Your task to perform on an android device: turn notification dots off Image 0: 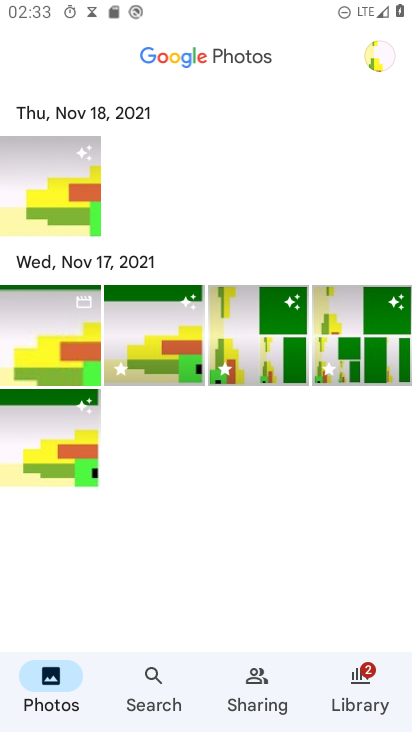
Step 0: press home button
Your task to perform on an android device: turn notification dots off Image 1: 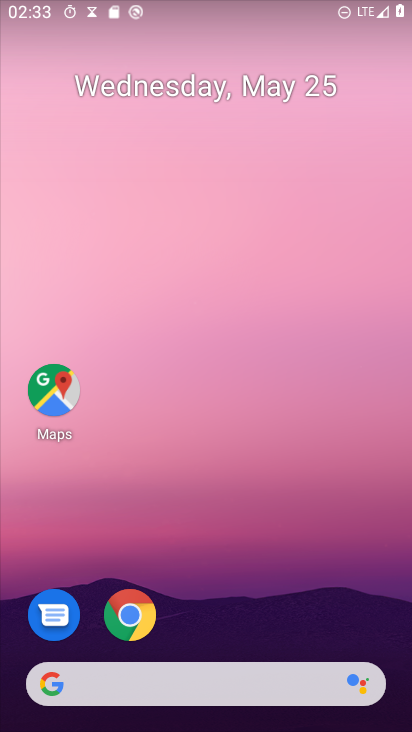
Step 1: drag from (255, 628) to (181, 4)
Your task to perform on an android device: turn notification dots off Image 2: 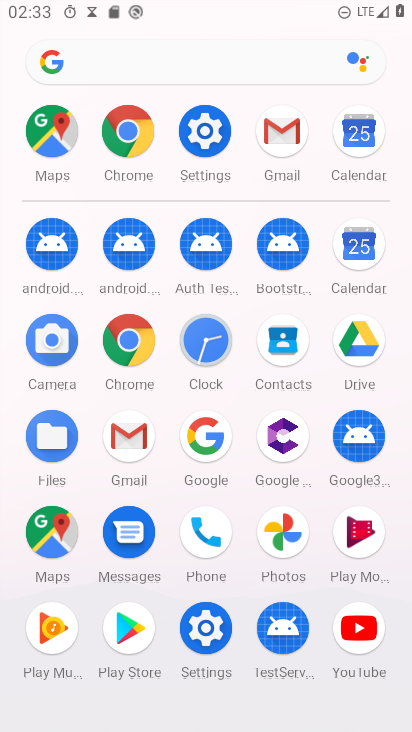
Step 2: click (191, 140)
Your task to perform on an android device: turn notification dots off Image 3: 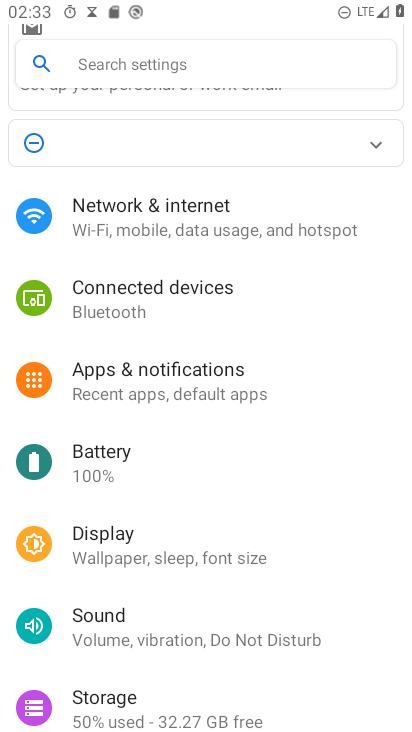
Step 3: click (98, 62)
Your task to perform on an android device: turn notification dots off Image 4: 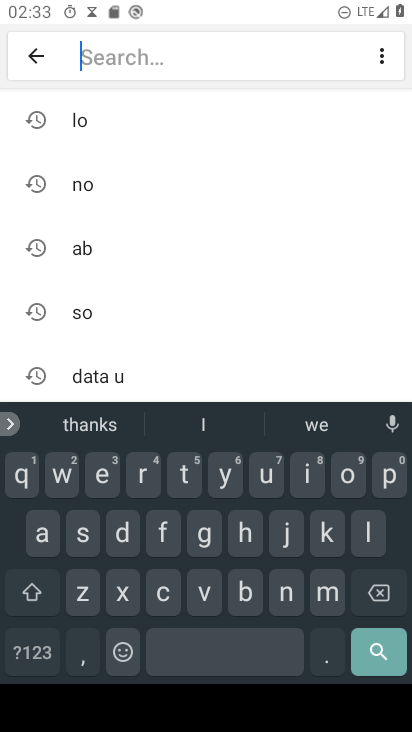
Step 4: click (123, 536)
Your task to perform on an android device: turn notification dots off Image 5: 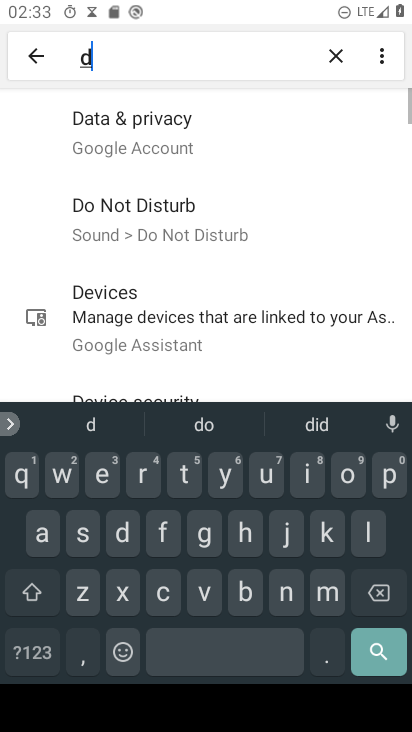
Step 5: click (355, 481)
Your task to perform on an android device: turn notification dots off Image 6: 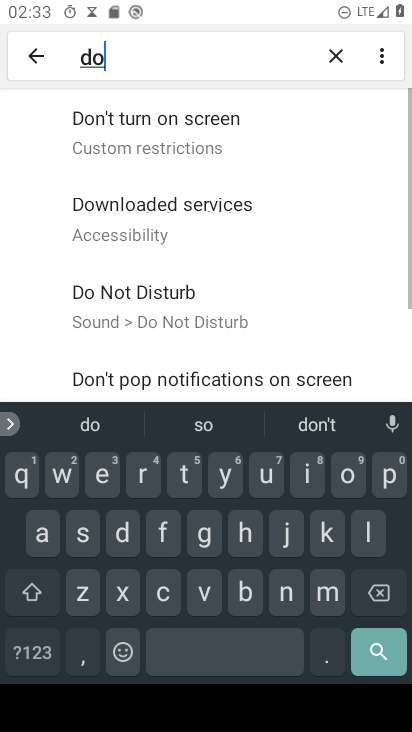
Step 6: click (181, 480)
Your task to perform on an android device: turn notification dots off Image 7: 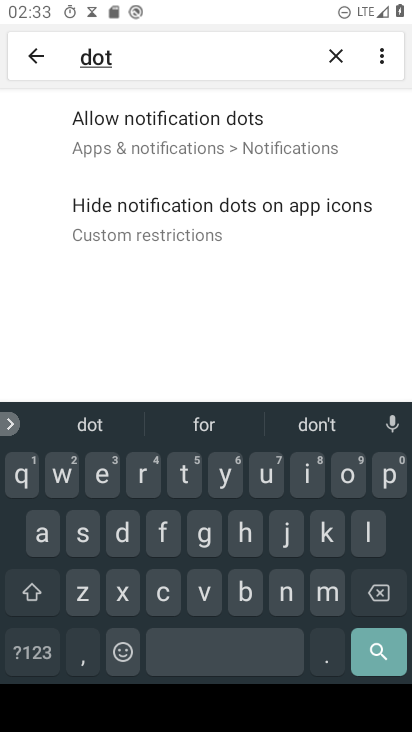
Step 7: click (192, 131)
Your task to perform on an android device: turn notification dots off Image 8: 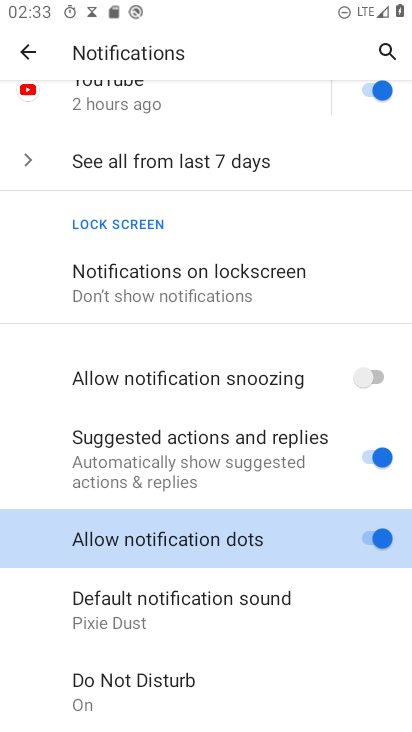
Step 8: click (371, 518)
Your task to perform on an android device: turn notification dots off Image 9: 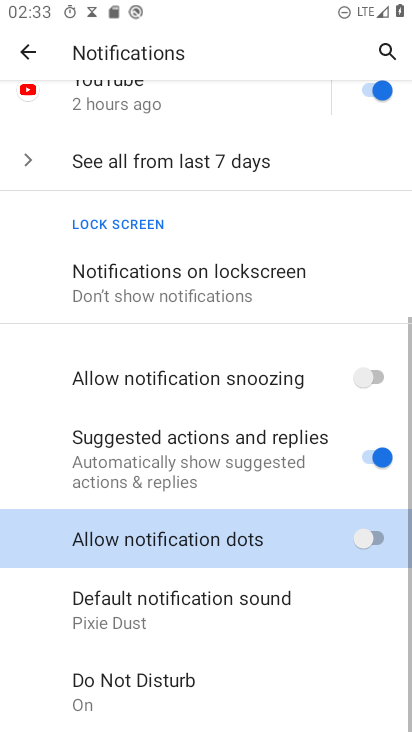
Step 9: task complete